Your task to perform on an android device: turn off improve location accuracy Image 0: 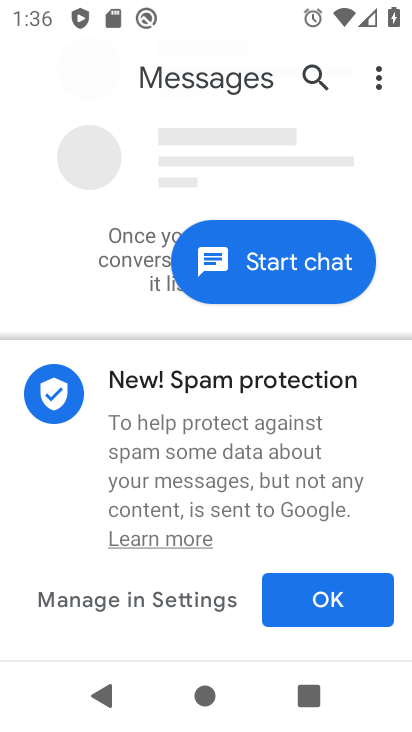
Step 0: press home button
Your task to perform on an android device: turn off improve location accuracy Image 1: 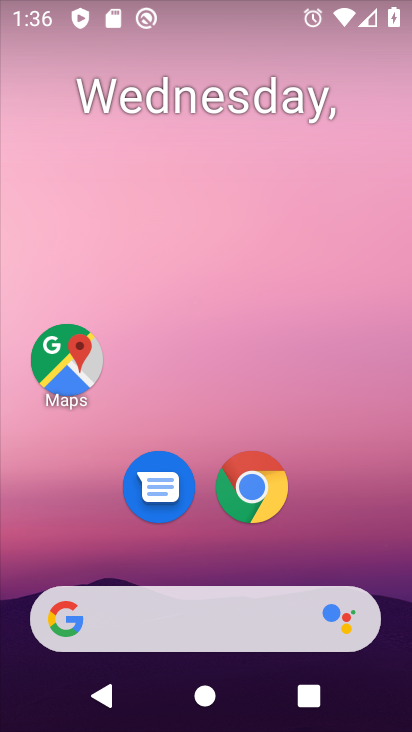
Step 1: drag from (399, 612) to (281, 65)
Your task to perform on an android device: turn off improve location accuracy Image 2: 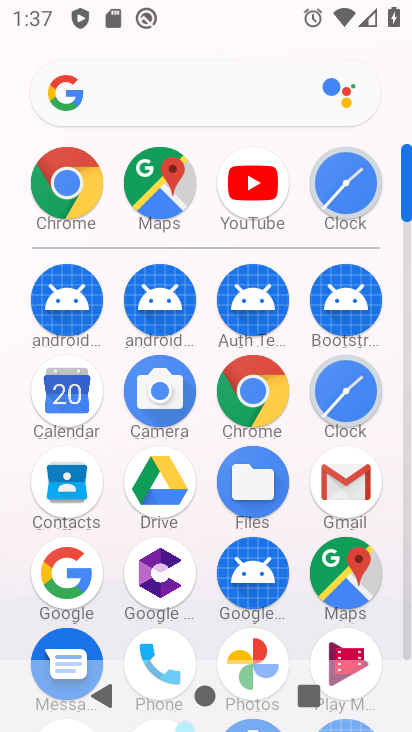
Step 2: click (407, 655)
Your task to perform on an android device: turn off improve location accuracy Image 3: 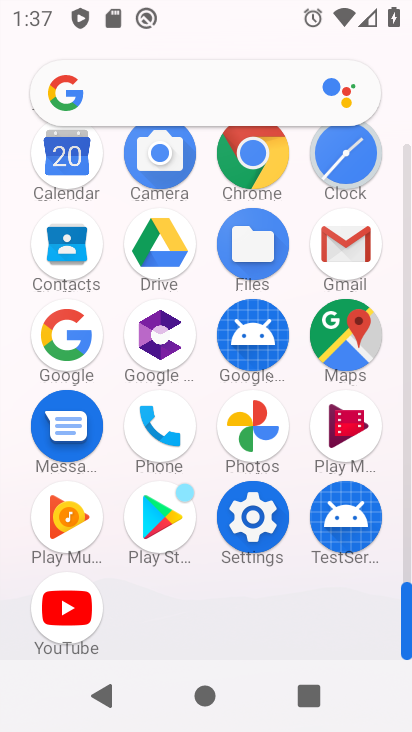
Step 3: click (258, 524)
Your task to perform on an android device: turn off improve location accuracy Image 4: 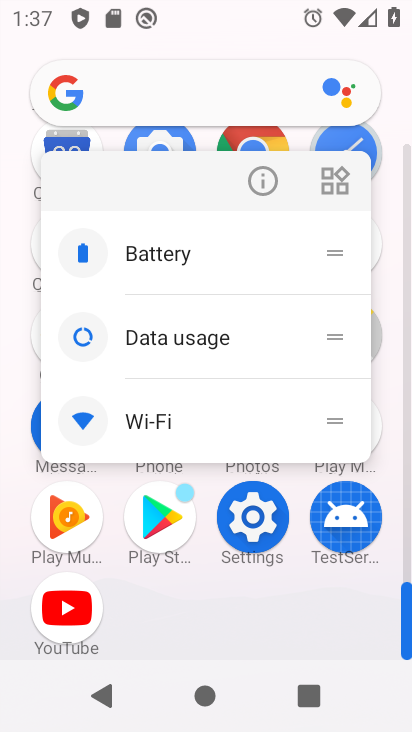
Step 4: click (258, 524)
Your task to perform on an android device: turn off improve location accuracy Image 5: 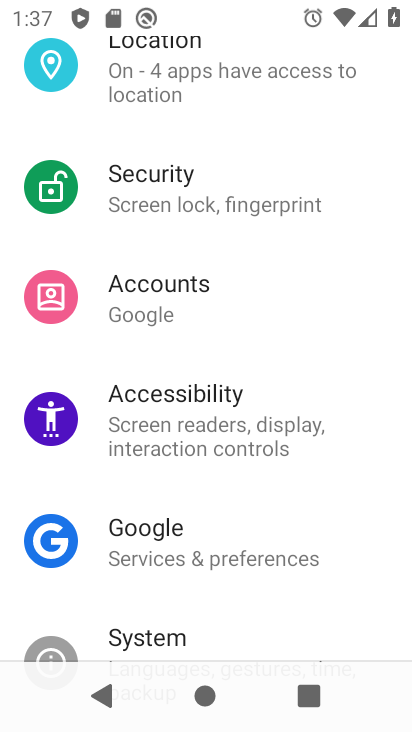
Step 5: click (149, 104)
Your task to perform on an android device: turn off improve location accuracy Image 6: 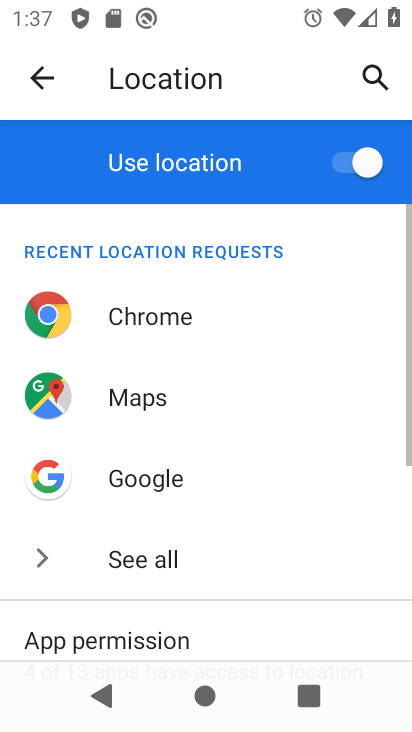
Step 6: drag from (195, 580) to (266, 136)
Your task to perform on an android device: turn off improve location accuracy Image 7: 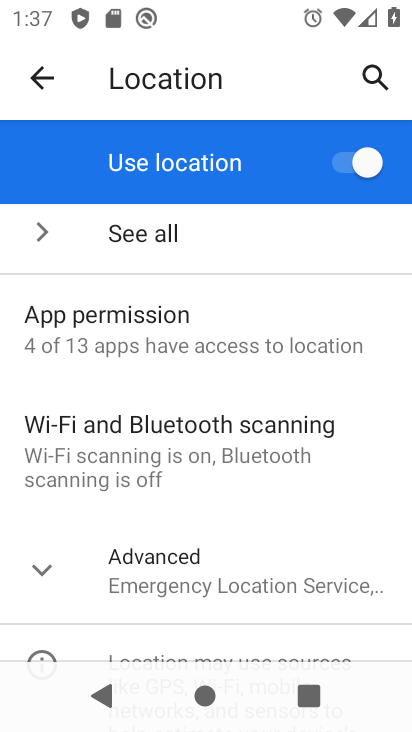
Step 7: click (47, 567)
Your task to perform on an android device: turn off improve location accuracy Image 8: 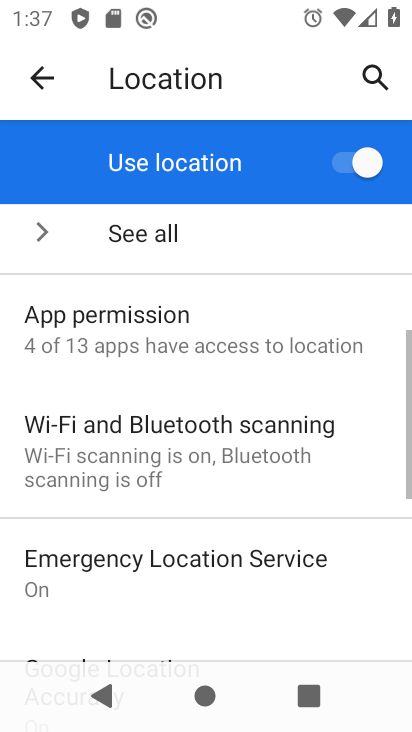
Step 8: drag from (156, 525) to (196, 202)
Your task to perform on an android device: turn off improve location accuracy Image 9: 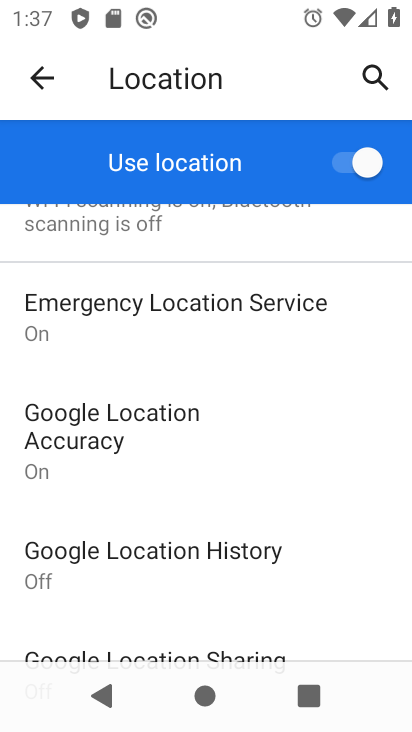
Step 9: click (213, 419)
Your task to perform on an android device: turn off improve location accuracy Image 10: 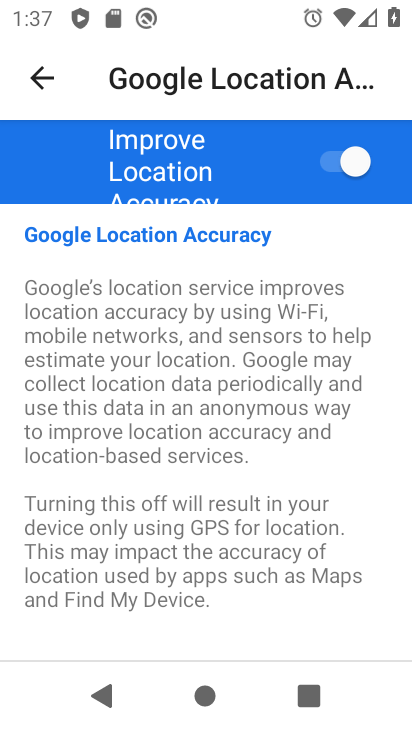
Step 10: click (338, 160)
Your task to perform on an android device: turn off improve location accuracy Image 11: 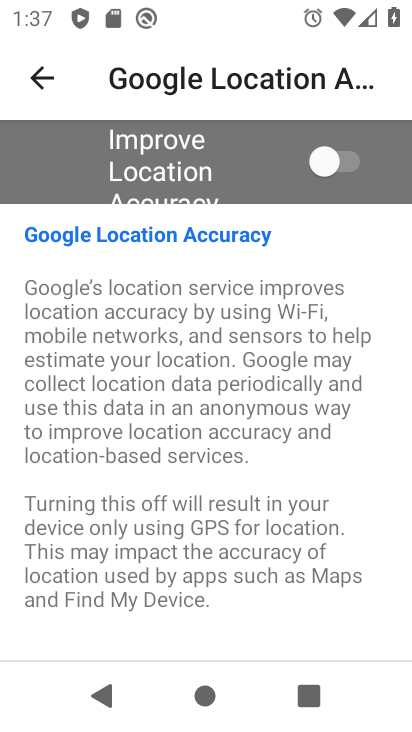
Step 11: task complete